Your task to perform on an android device: Open the web browser Image 0: 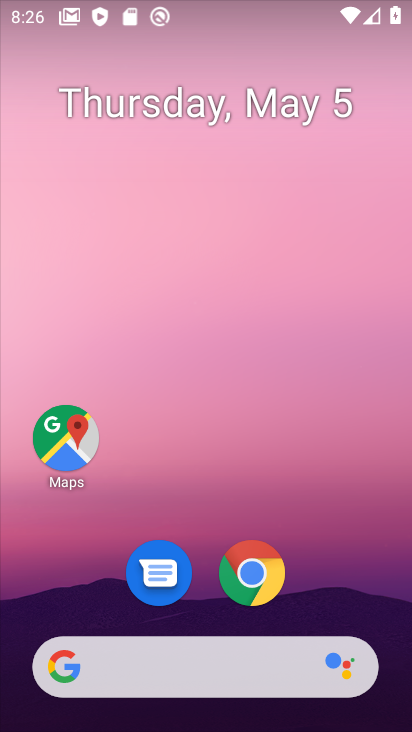
Step 0: click (250, 574)
Your task to perform on an android device: Open the web browser Image 1: 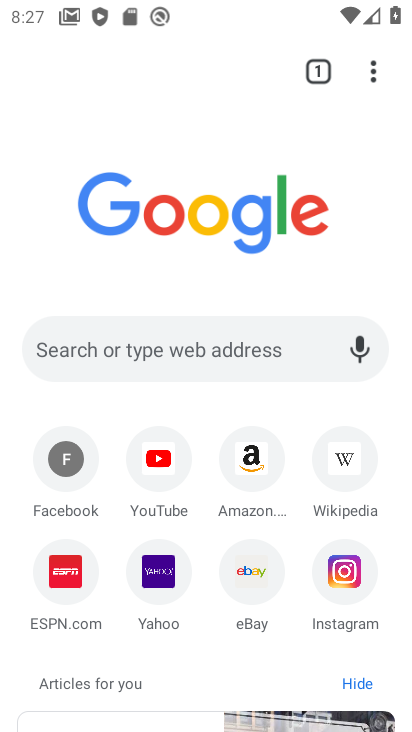
Step 1: click (150, 348)
Your task to perform on an android device: Open the web browser Image 2: 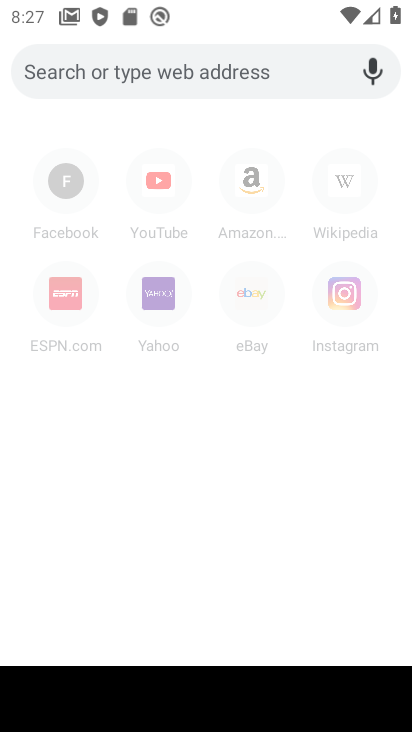
Step 2: task complete